Your task to perform on an android device: set an alarm Image 0: 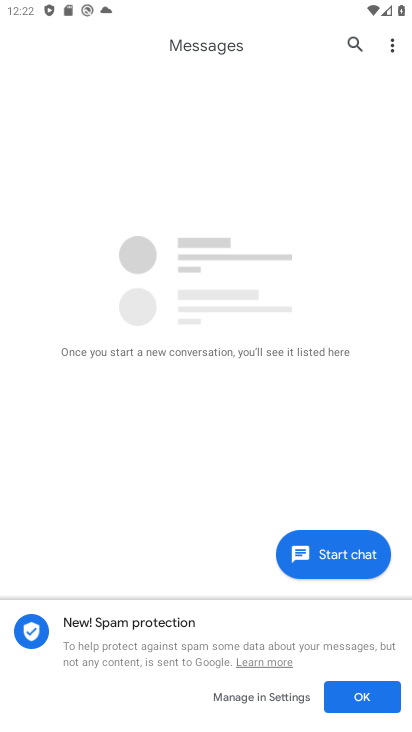
Step 0: press home button
Your task to perform on an android device: set an alarm Image 1: 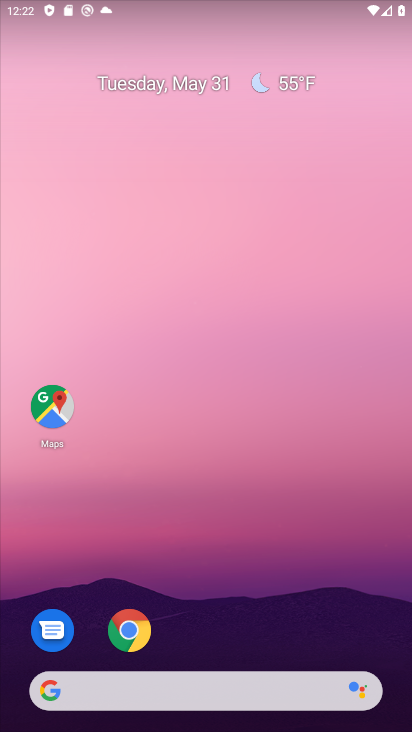
Step 1: drag from (199, 498) to (220, 349)
Your task to perform on an android device: set an alarm Image 2: 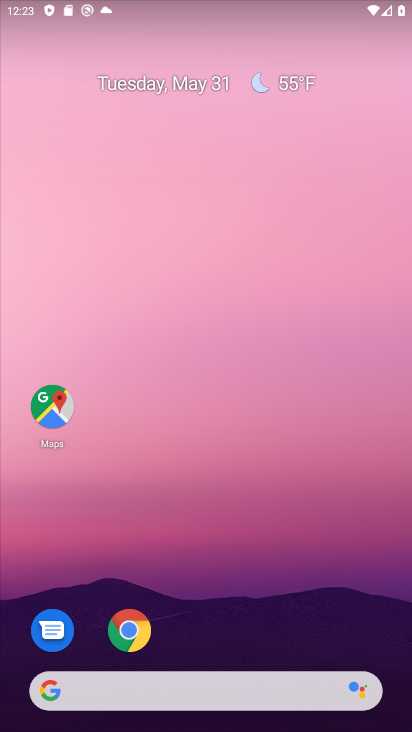
Step 2: drag from (158, 477) to (159, 213)
Your task to perform on an android device: set an alarm Image 3: 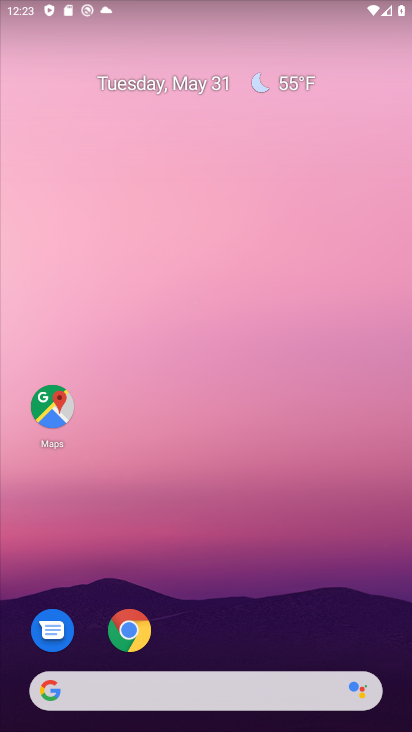
Step 3: drag from (214, 665) to (209, 244)
Your task to perform on an android device: set an alarm Image 4: 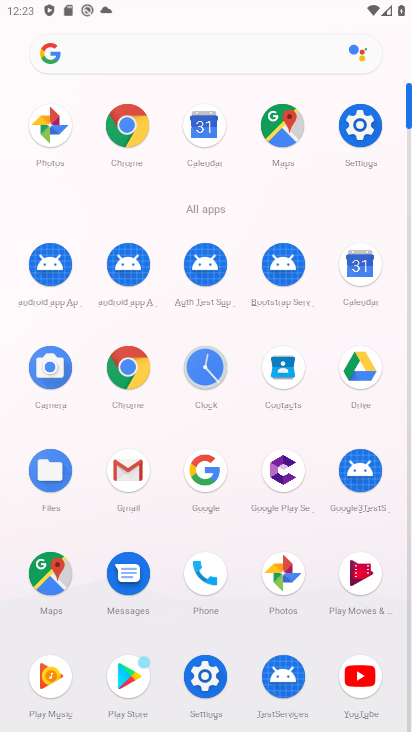
Step 4: click (202, 373)
Your task to perform on an android device: set an alarm Image 5: 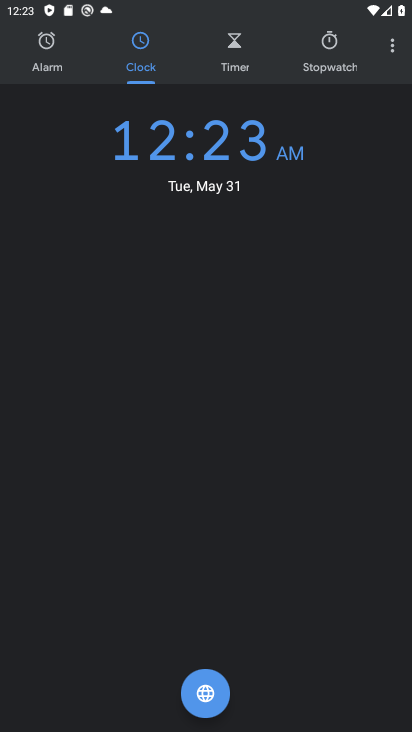
Step 5: click (32, 58)
Your task to perform on an android device: set an alarm Image 6: 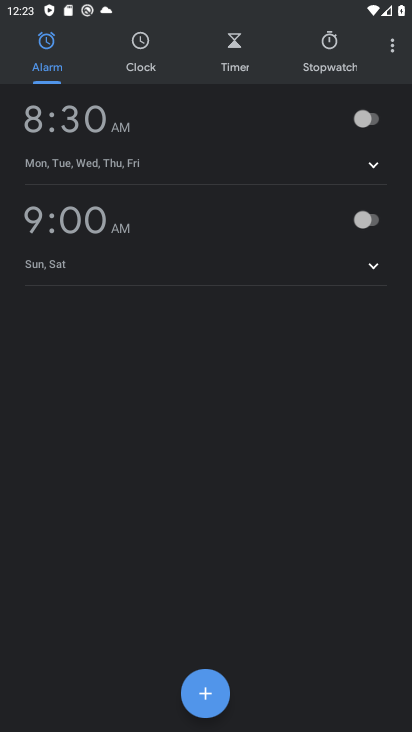
Step 6: click (213, 692)
Your task to perform on an android device: set an alarm Image 7: 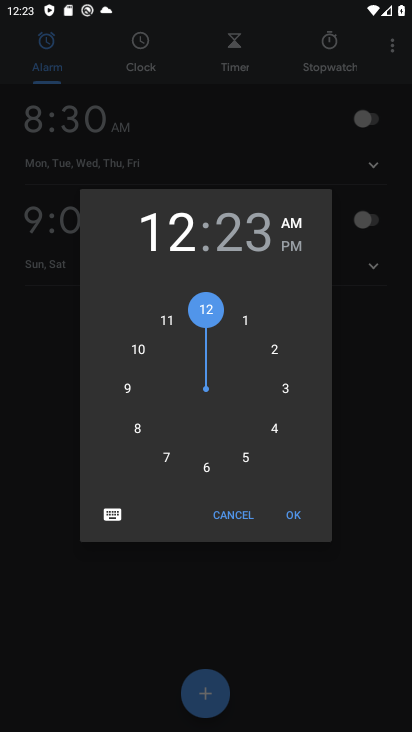
Step 7: click (166, 455)
Your task to perform on an android device: set an alarm Image 8: 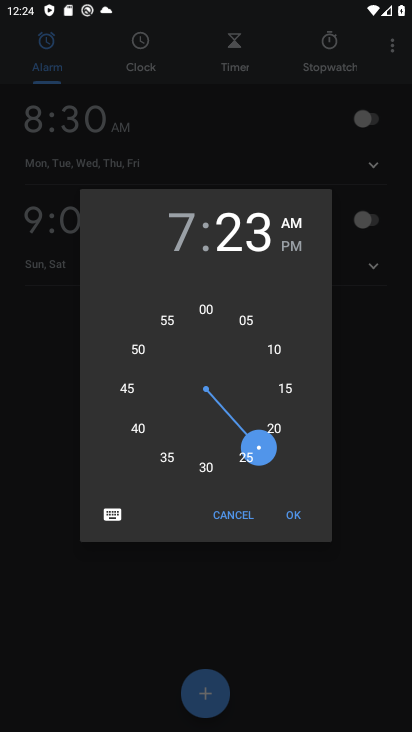
Step 8: click (209, 470)
Your task to perform on an android device: set an alarm Image 9: 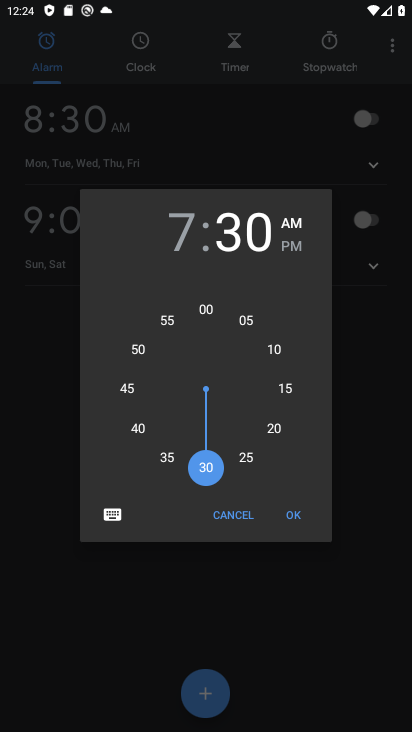
Step 9: click (289, 251)
Your task to perform on an android device: set an alarm Image 10: 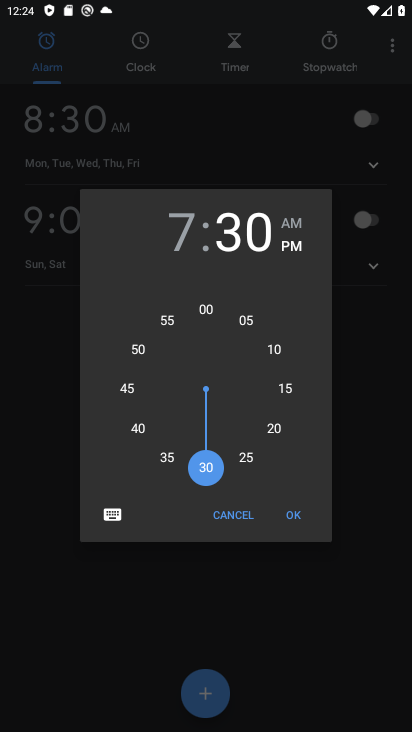
Step 10: click (295, 517)
Your task to perform on an android device: set an alarm Image 11: 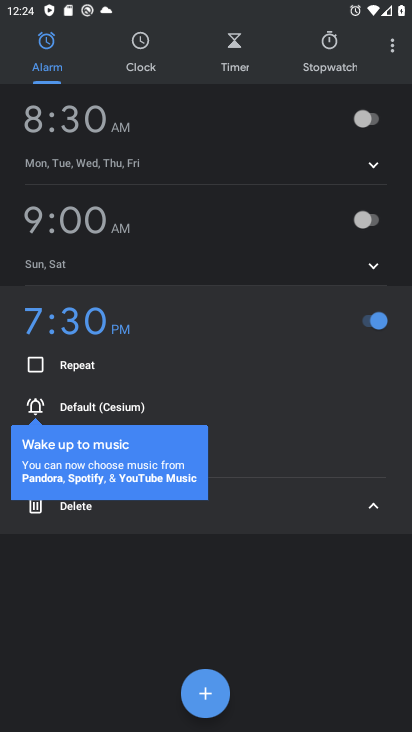
Step 11: task complete